Your task to perform on an android device: star an email in the gmail app Image 0: 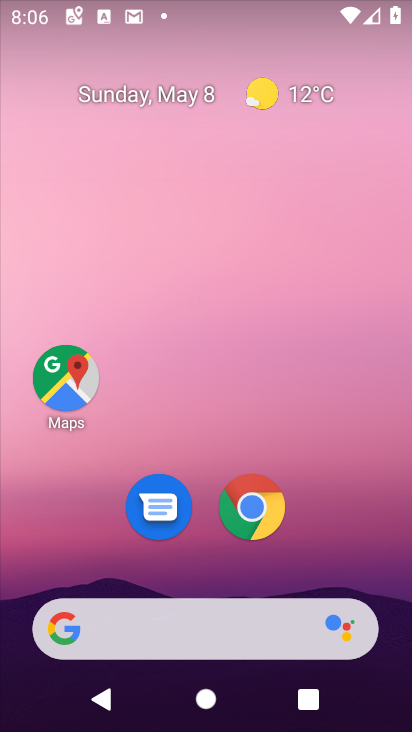
Step 0: drag from (258, 556) to (322, 3)
Your task to perform on an android device: star an email in the gmail app Image 1: 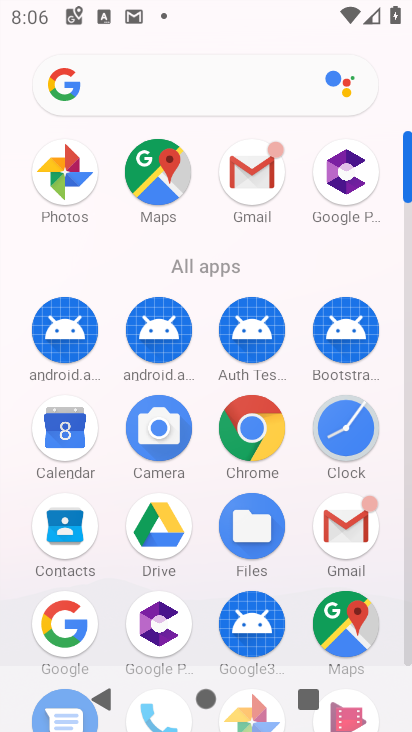
Step 1: click (342, 527)
Your task to perform on an android device: star an email in the gmail app Image 2: 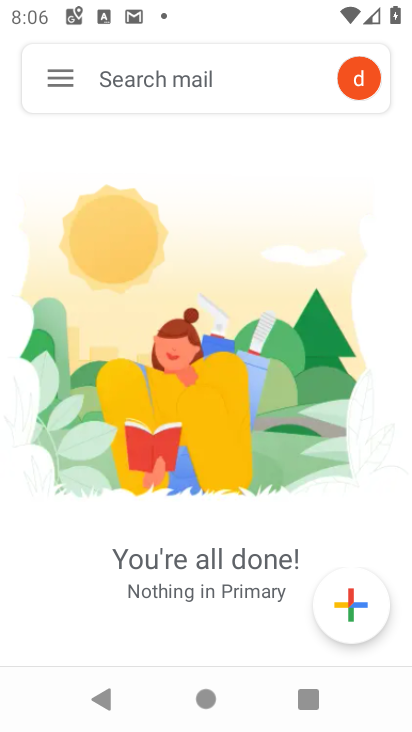
Step 2: click (59, 73)
Your task to perform on an android device: star an email in the gmail app Image 3: 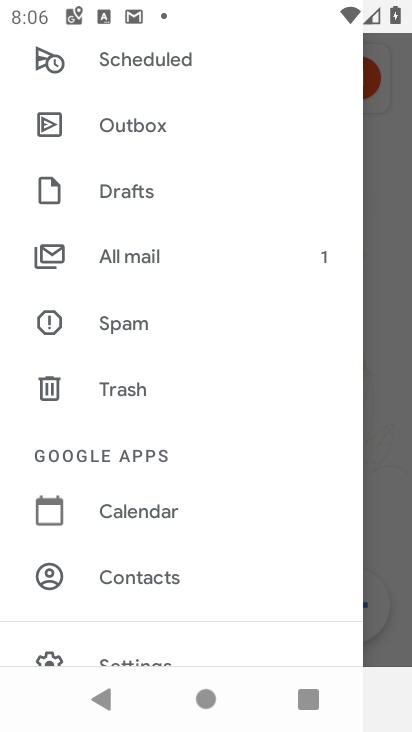
Step 3: click (207, 255)
Your task to perform on an android device: star an email in the gmail app Image 4: 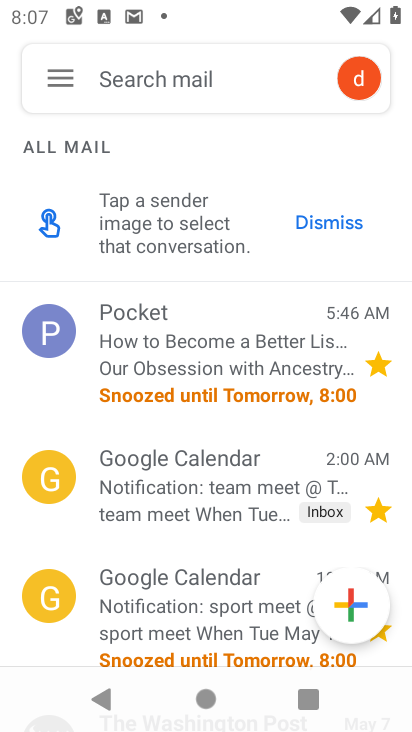
Step 4: drag from (267, 561) to (250, 41)
Your task to perform on an android device: star an email in the gmail app Image 5: 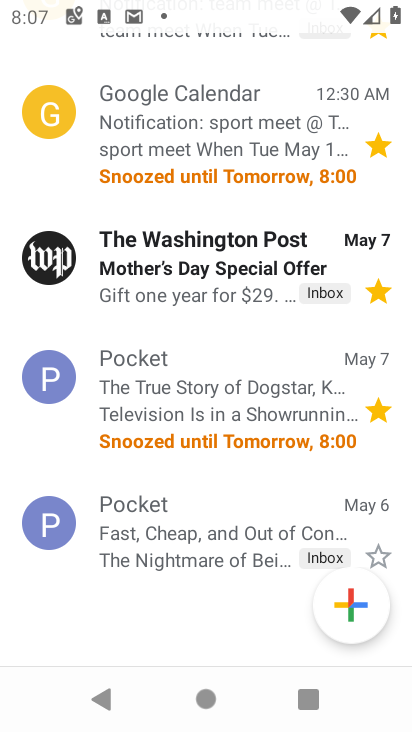
Step 5: click (377, 553)
Your task to perform on an android device: star an email in the gmail app Image 6: 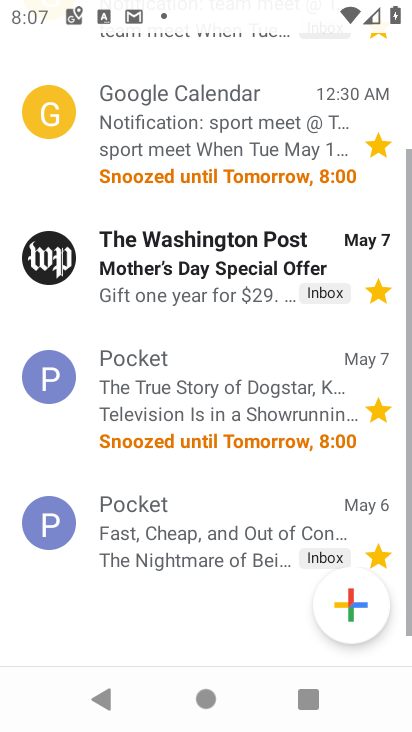
Step 6: task complete